Your task to perform on an android device: open chrome and create a bookmark for the current page Image 0: 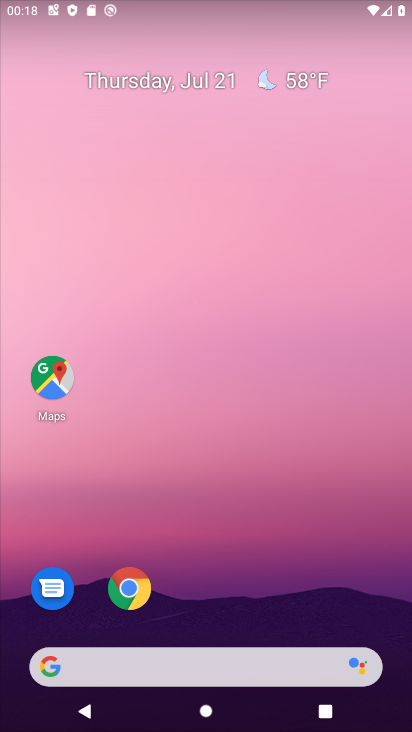
Step 0: drag from (254, 626) to (239, 281)
Your task to perform on an android device: open chrome and create a bookmark for the current page Image 1: 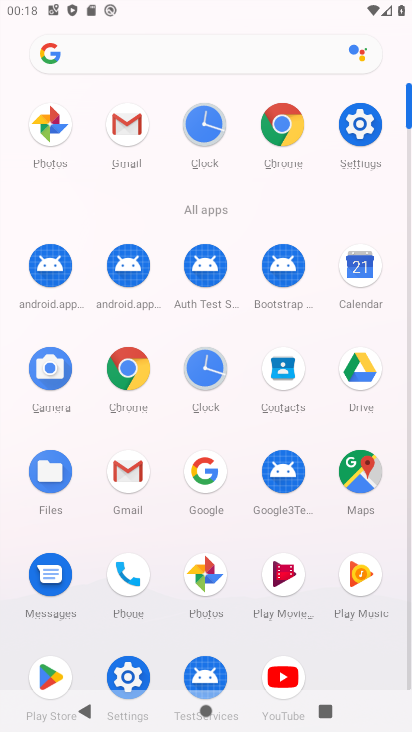
Step 1: click (116, 380)
Your task to perform on an android device: open chrome and create a bookmark for the current page Image 2: 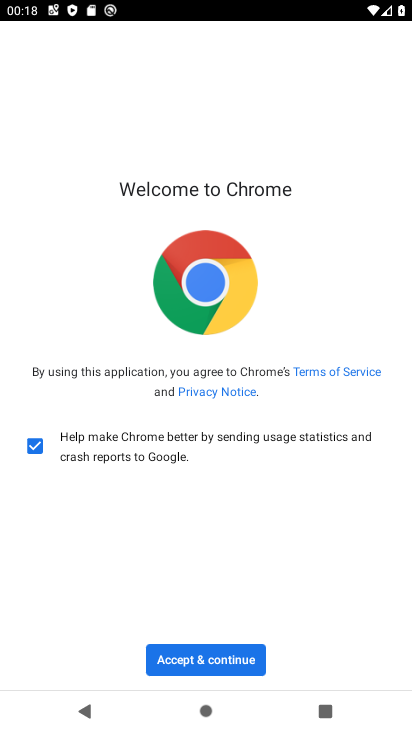
Step 2: click (226, 661)
Your task to perform on an android device: open chrome and create a bookmark for the current page Image 3: 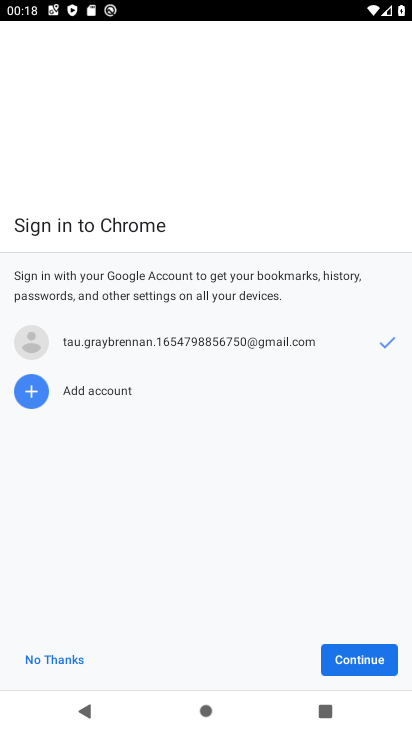
Step 3: click (383, 653)
Your task to perform on an android device: open chrome and create a bookmark for the current page Image 4: 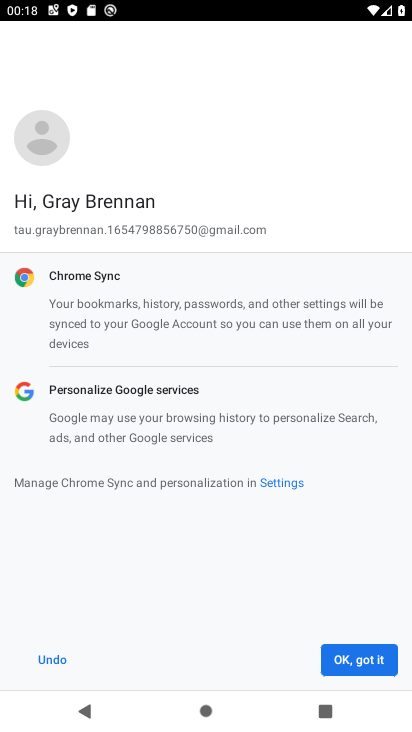
Step 4: click (366, 660)
Your task to perform on an android device: open chrome and create a bookmark for the current page Image 5: 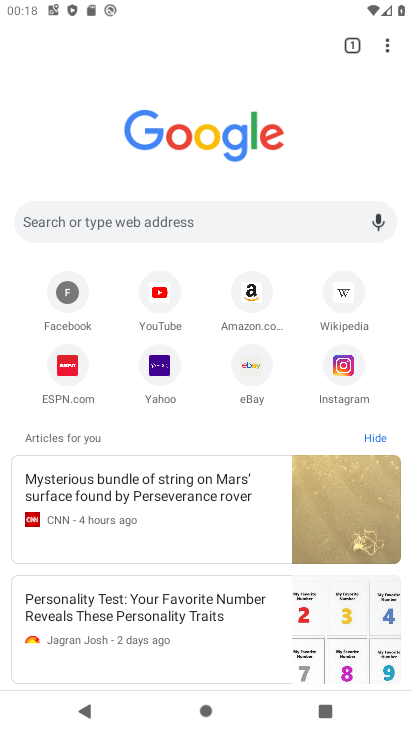
Step 5: click (386, 46)
Your task to perform on an android device: open chrome and create a bookmark for the current page Image 6: 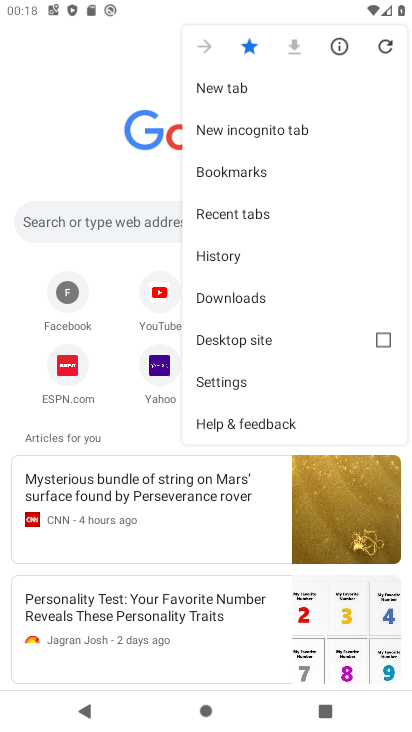
Step 6: task complete